Your task to perform on an android device: turn off wifi Image 0: 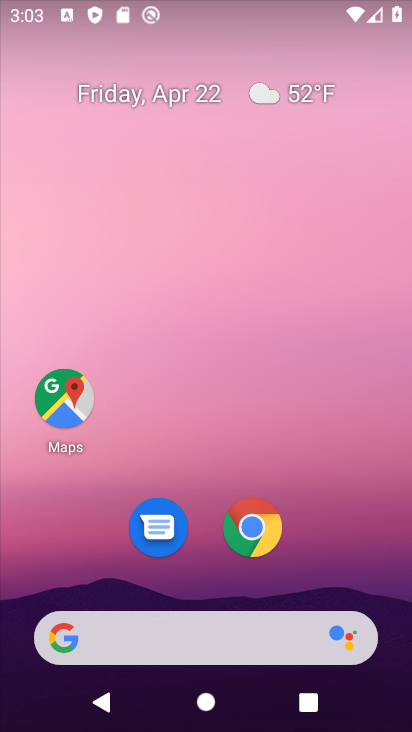
Step 0: drag from (410, 334) to (409, 82)
Your task to perform on an android device: turn off wifi Image 1: 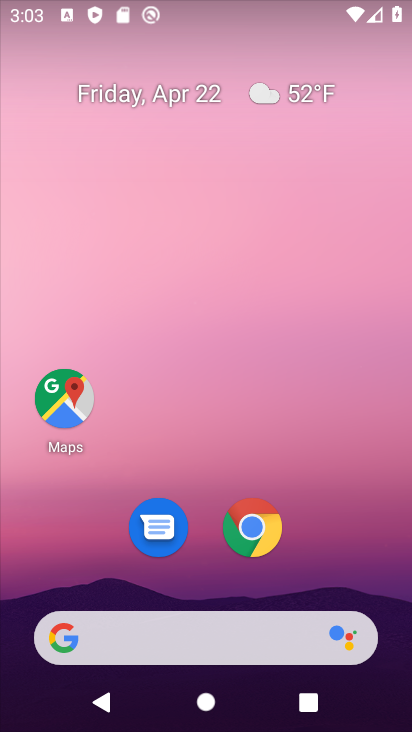
Step 1: drag from (325, 527) to (374, 64)
Your task to perform on an android device: turn off wifi Image 2: 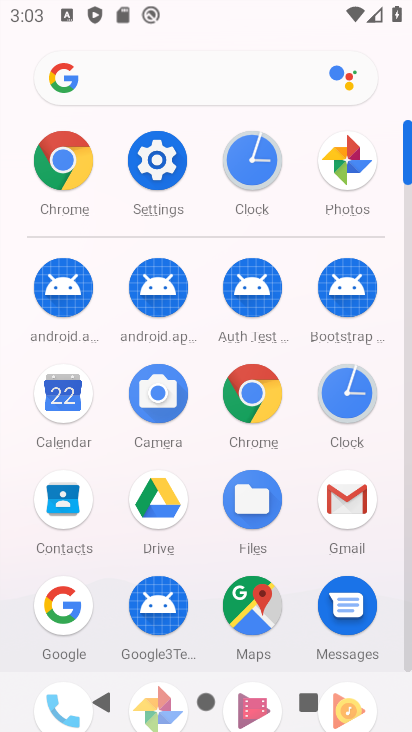
Step 2: click (161, 165)
Your task to perform on an android device: turn off wifi Image 3: 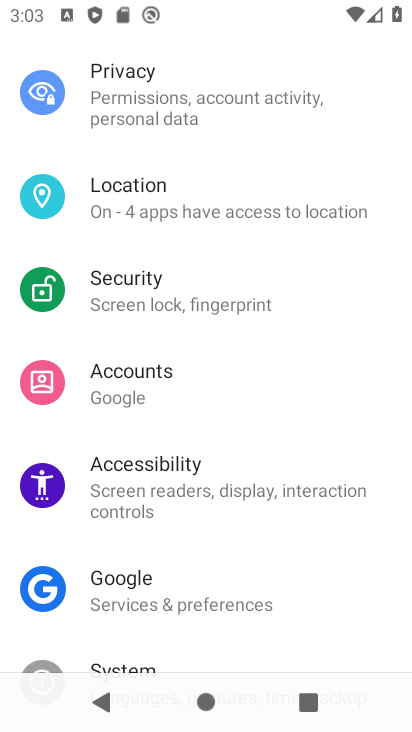
Step 3: drag from (259, 148) to (245, 534)
Your task to perform on an android device: turn off wifi Image 4: 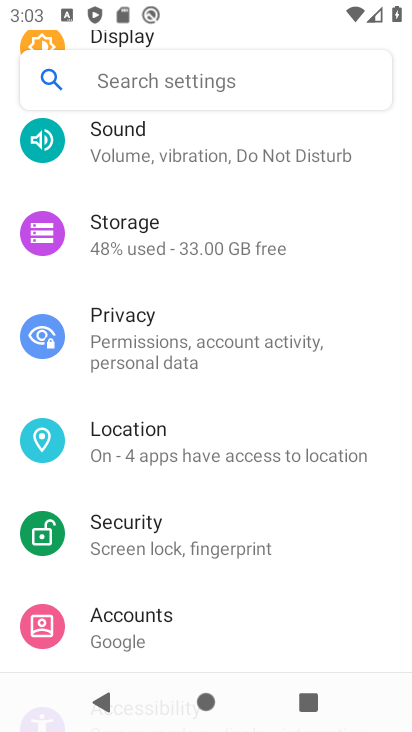
Step 4: drag from (262, 130) to (248, 533)
Your task to perform on an android device: turn off wifi Image 5: 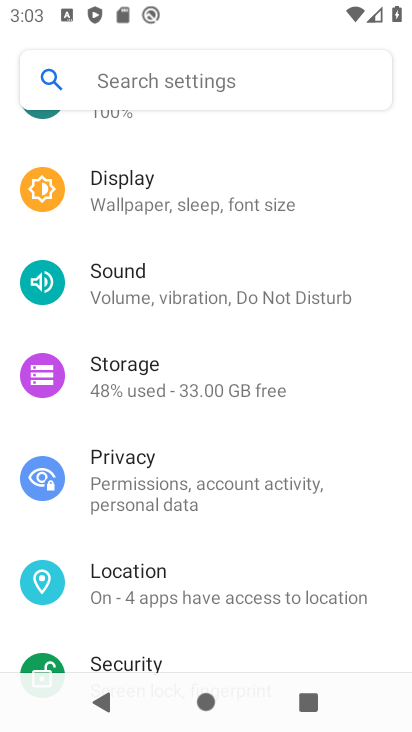
Step 5: drag from (294, 252) to (259, 519)
Your task to perform on an android device: turn off wifi Image 6: 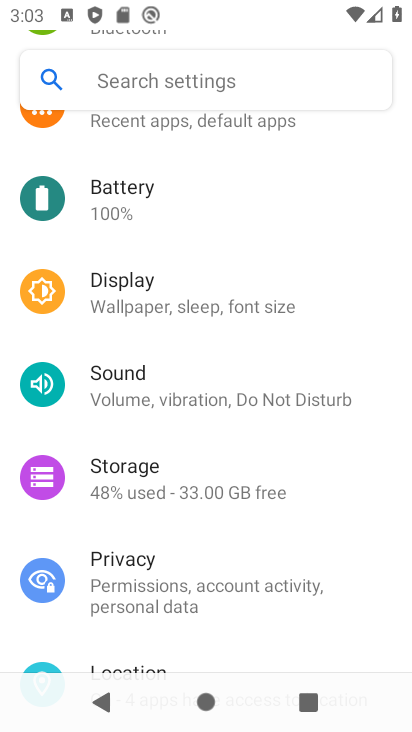
Step 6: drag from (276, 151) to (228, 541)
Your task to perform on an android device: turn off wifi Image 7: 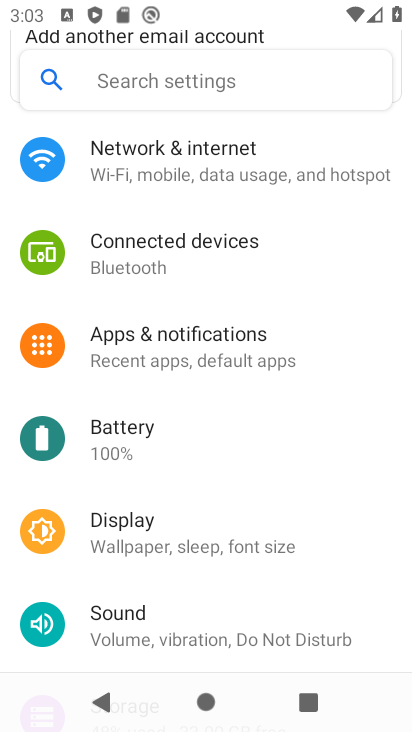
Step 7: drag from (214, 316) to (256, 548)
Your task to perform on an android device: turn off wifi Image 8: 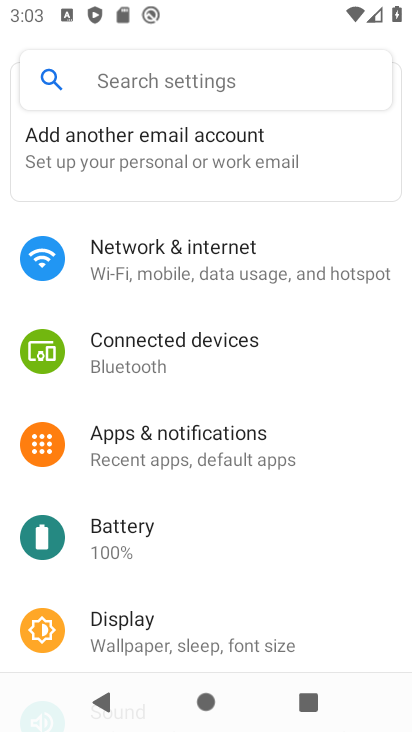
Step 8: drag from (259, 234) to (279, 564)
Your task to perform on an android device: turn off wifi Image 9: 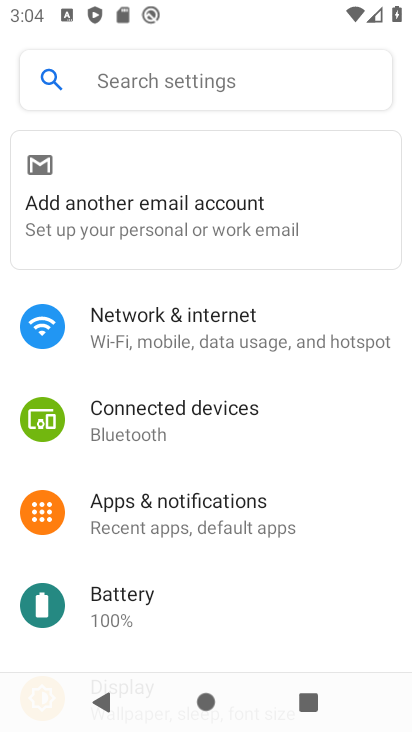
Step 9: click (184, 327)
Your task to perform on an android device: turn off wifi Image 10: 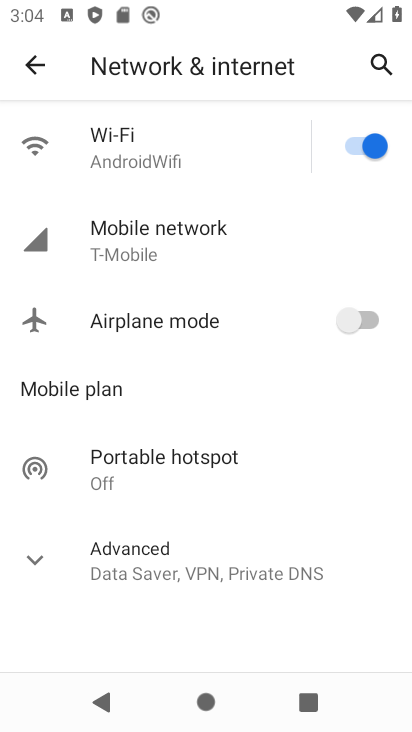
Step 10: click (358, 151)
Your task to perform on an android device: turn off wifi Image 11: 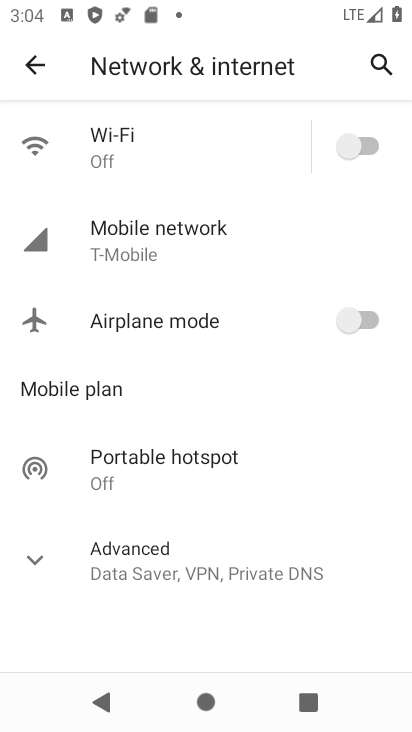
Step 11: task complete